Your task to perform on an android device: Go to Android settings Image 0: 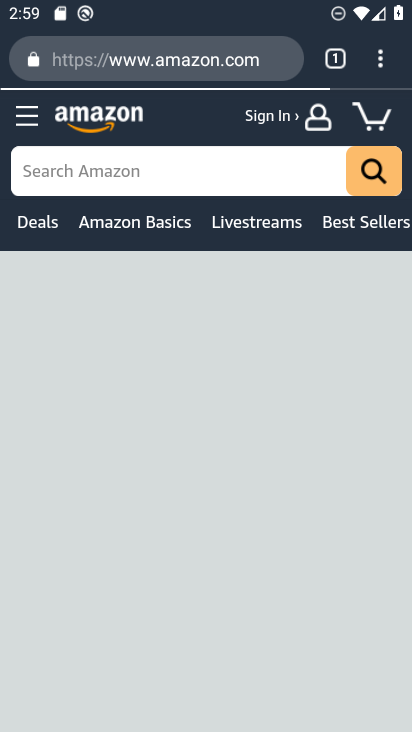
Step 0: press home button
Your task to perform on an android device: Go to Android settings Image 1: 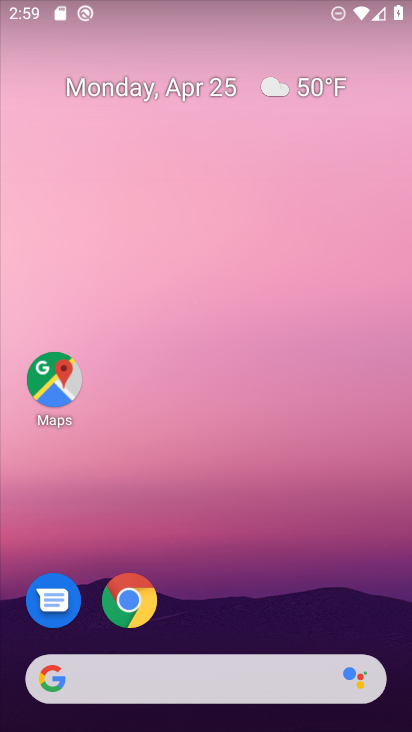
Step 1: drag from (216, 649) to (264, 33)
Your task to perform on an android device: Go to Android settings Image 2: 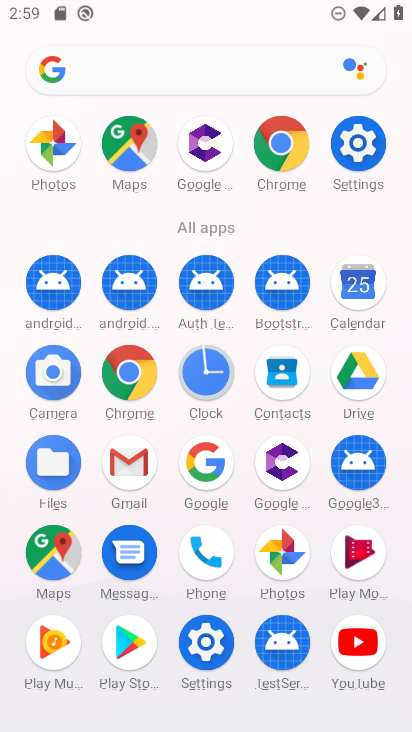
Step 2: click (357, 147)
Your task to perform on an android device: Go to Android settings Image 3: 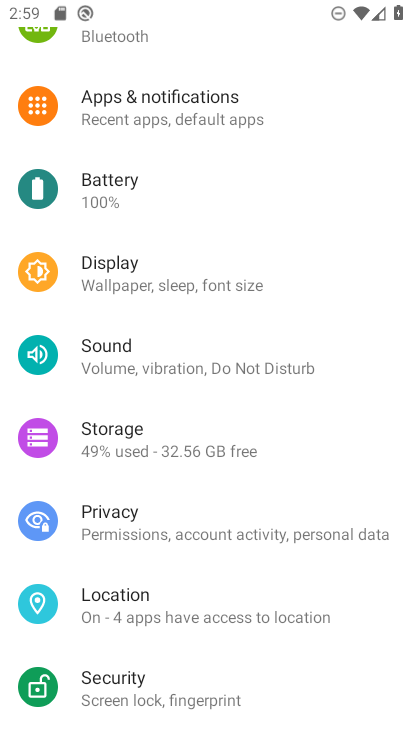
Step 3: drag from (274, 550) to (272, 243)
Your task to perform on an android device: Go to Android settings Image 4: 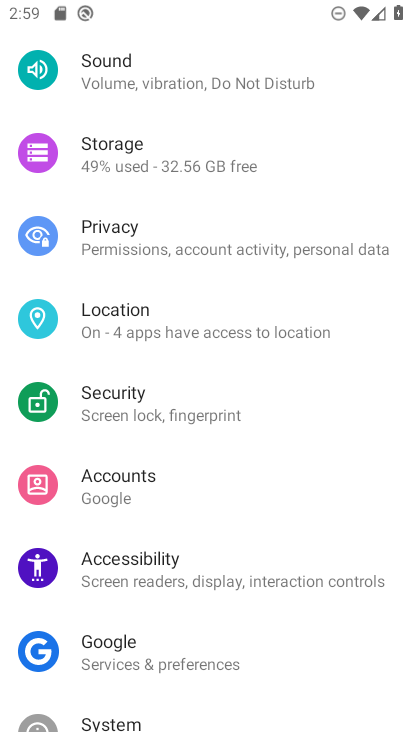
Step 4: drag from (215, 618) to (208, 75)
Your task to perform on an android device: Go to Android settings Image 5: 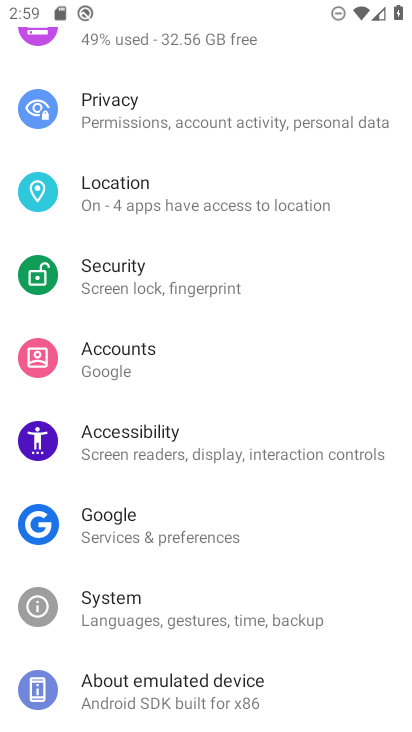
Step 5: click (111, 664)
Your task to perform on an android device: Go to Android settings Image 6: 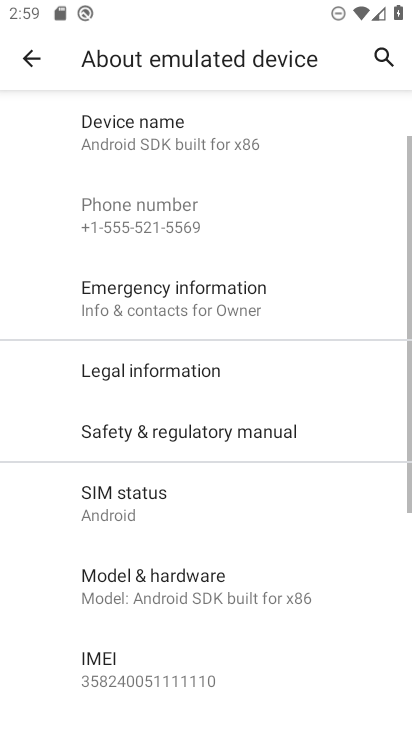
Step 6: drag from (199, 510) to (167, 104)
Your task to perform on an android device: Go to Android settings Image 7: 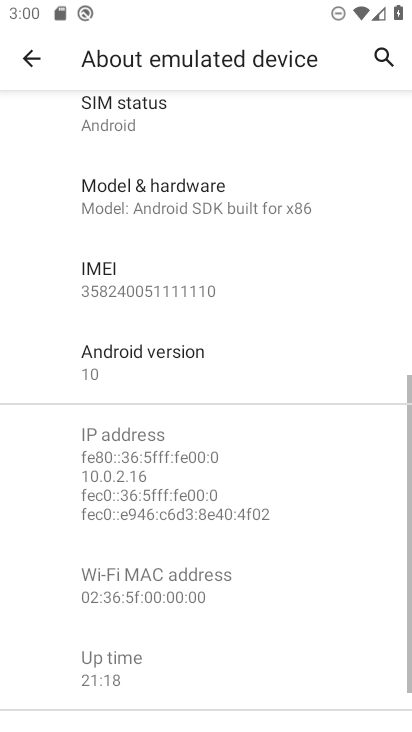
Step 7: drag from (248, 499) to (213, 225)
Your task to perform on an android device: Go to Android settings Image 8: 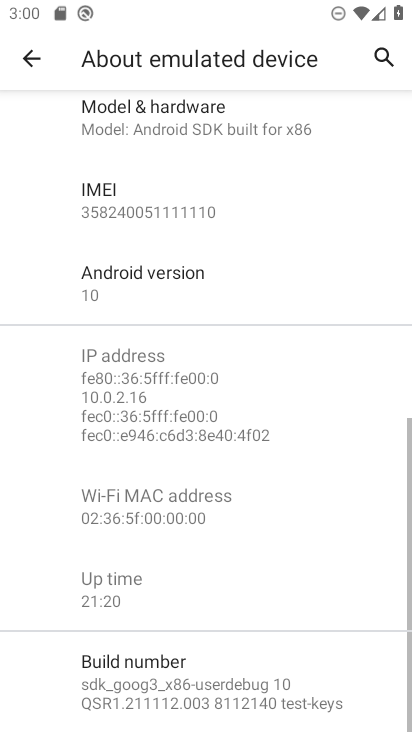
Step 8: click (119, 283)
Your task to perform on an android device: Go to Android settings Image 9: 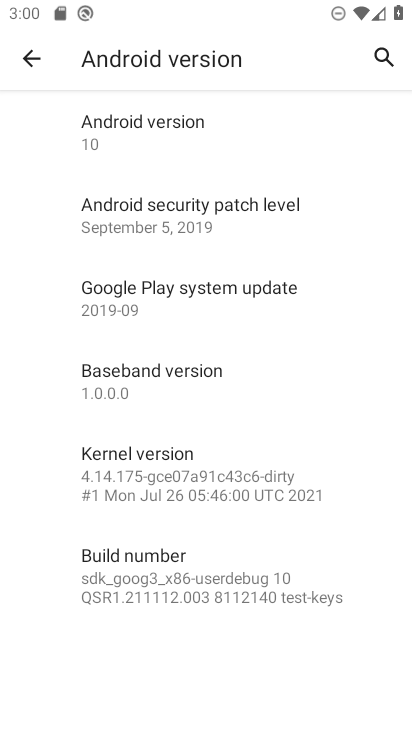
Step 9: click (155, 144)
Your task to perform on an android device: Go to Android settings Image 10: 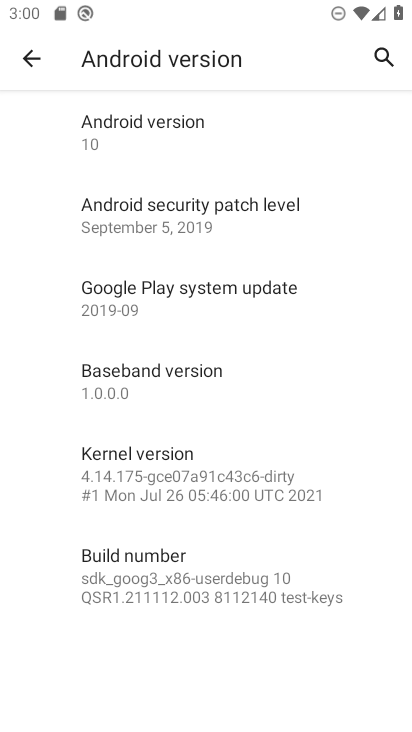
Step 10: task complete